Your task to perform on an android device: Search for Italian restaurants on Maps Image 0: 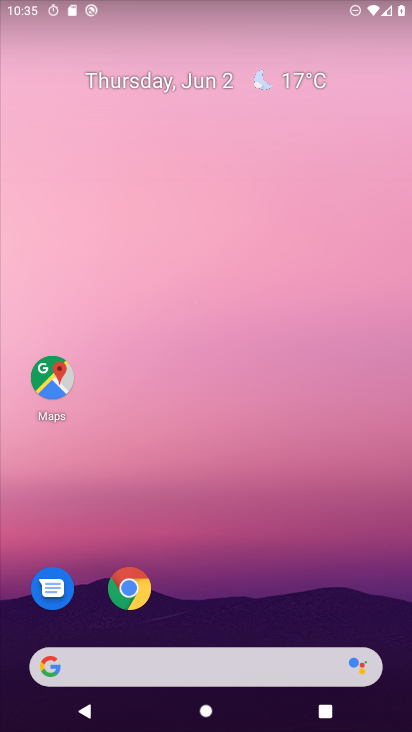
Step 0: drag from (236, 605) to (282, 259)
Your task to perform on an android device: Search for Italian restaurants on Maps Image 1: 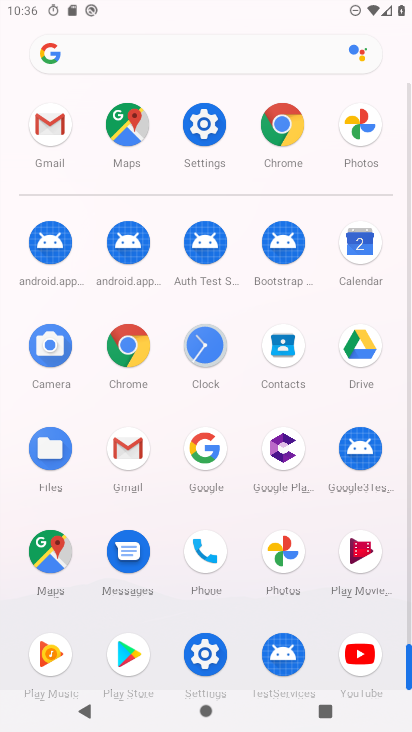
Step 1: click (41, 574)
Your task to perform on an android device: Search for Italian restaurants on Maps Image 2: 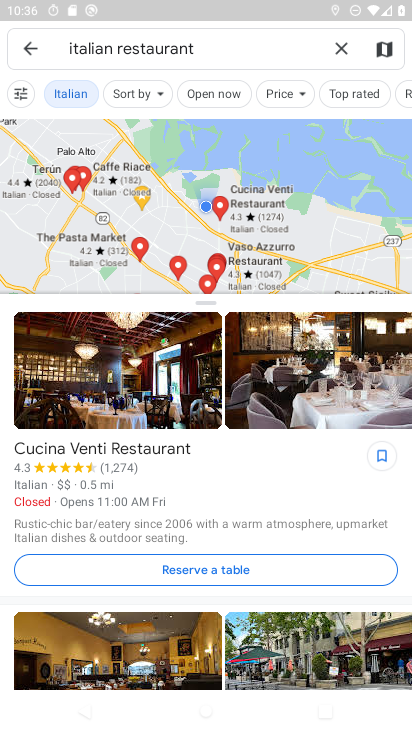
Step 2: task complete